Your task to perform on an android device: delete a single message in the gmail app Image 0: 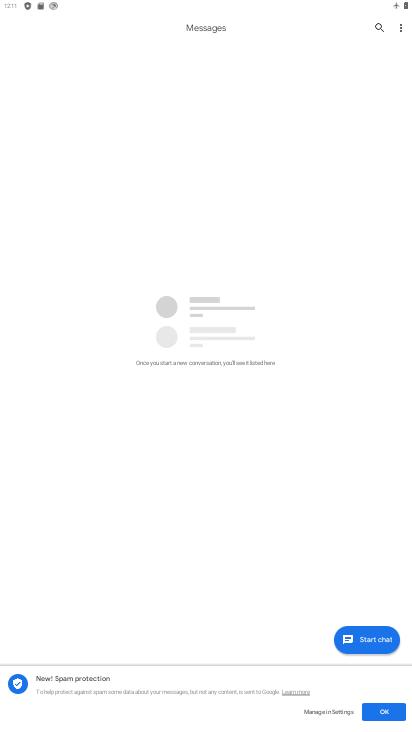
Step 0: press home button
Your task to perform on an android device: delete a single message in the gmail app Image 1: 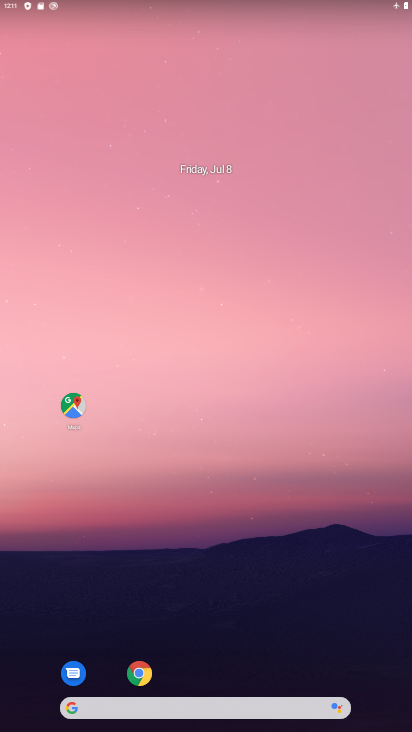
Step 1: drag from (278, 667) to (322, 215)
Your task to perform on an android device: delete a single message in the gmail app Image 2: 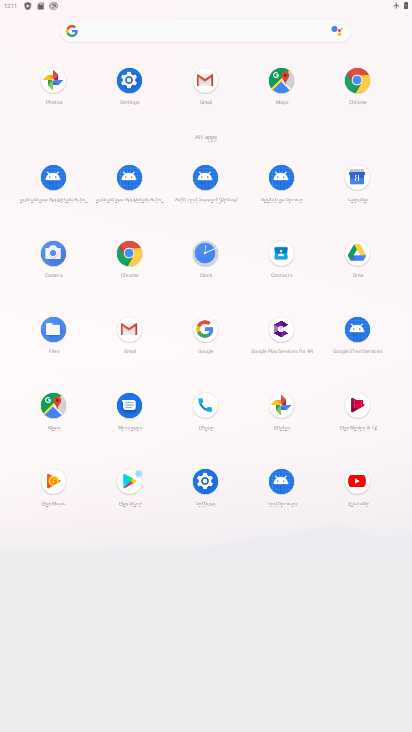
Step 2: click (204, 75)
Your task to perform on an android device: delete a single message in the gmail app Image 3: 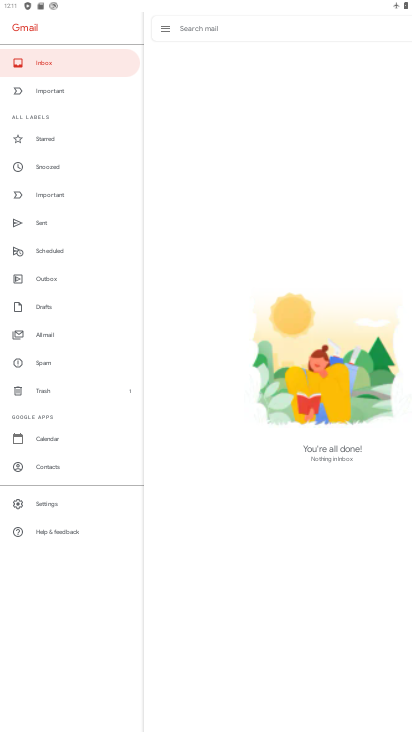
Step 3: click (46, 328)
Your task to perform on an android device: delete a single message in the gmail app Image 4: 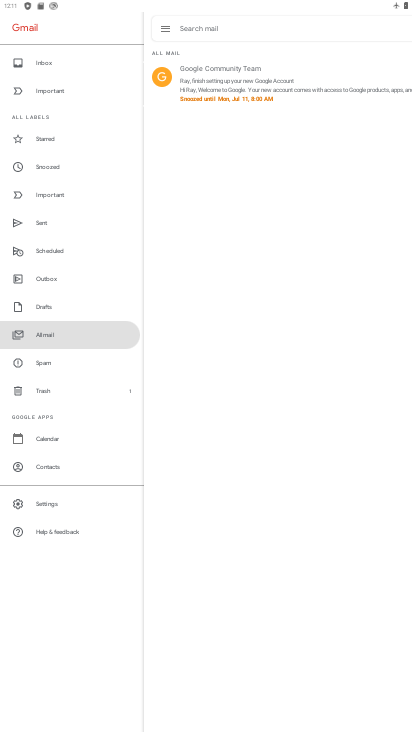
Step 4: click (202, 81)
Your task to perform on an android device: delete a single message in the gmail app Image 5: 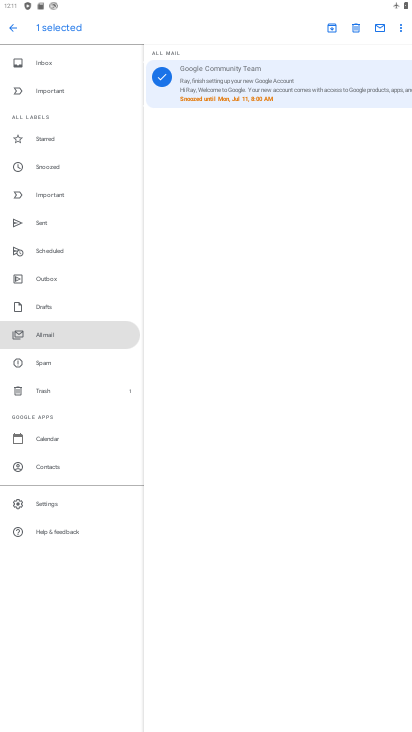
Step 5: click (354, 26)
Your task to perform on an android device: delete a single message in the gmail app Image 6: 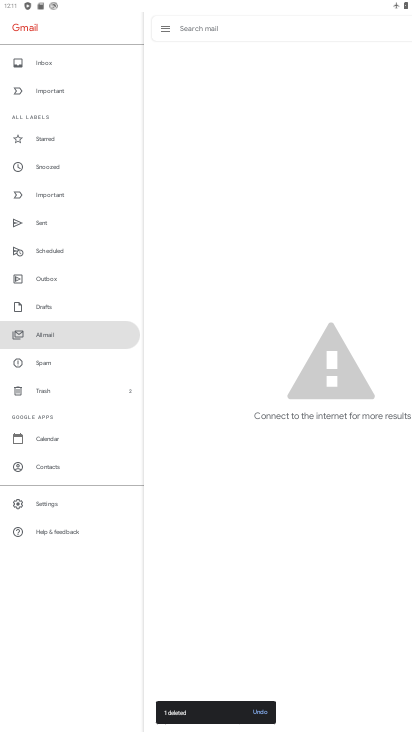
Step 6: task complete